Your task to perform on an android device: change the clock display to analog Image 0: 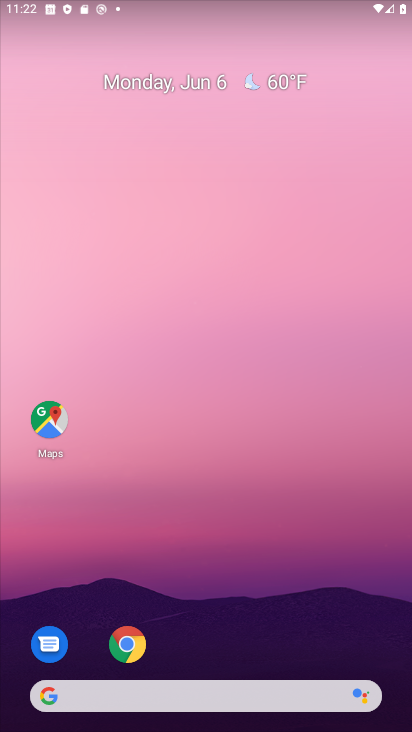
Step 0: drag from (139, 717) to (97, 29)
Your task to perform on an android device: change the clock display to analog Image 1: 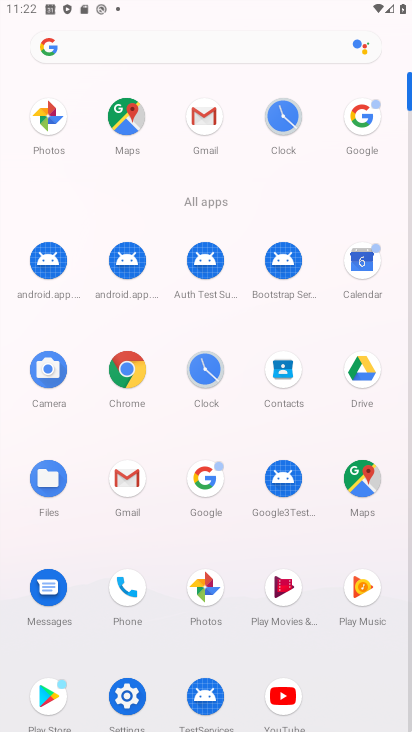
Step 1: click (290, 121)
Your task to perform on an android device: change the clock display to analog Image 2: 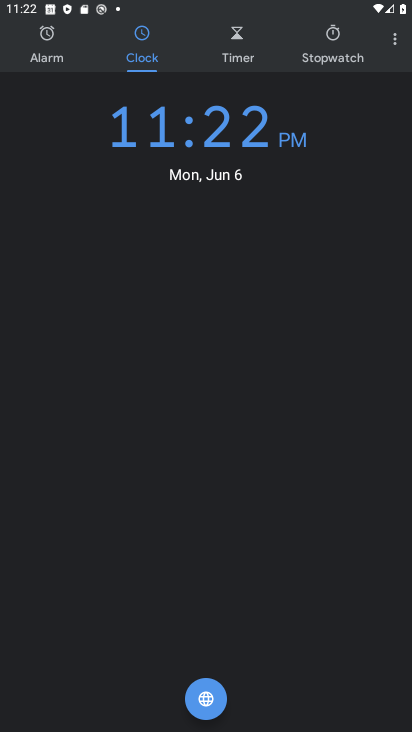
Step 2: click (396, 36)
Your task to perform on an android device: change the clock display to analog Image 3: 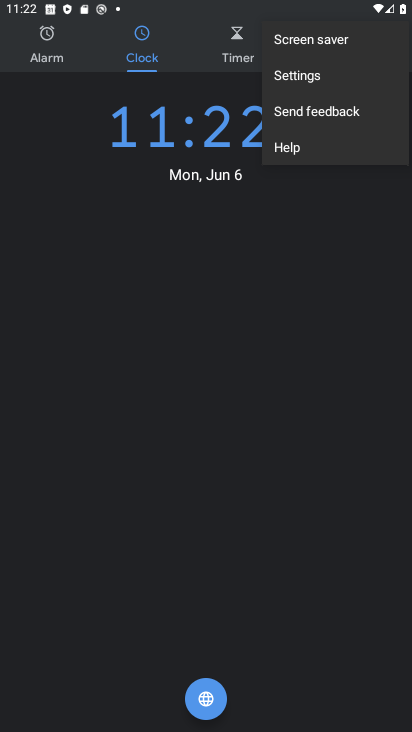
Step 3: click (337, 86)
Your task to perform on an android device: change the clock display to analog Image 4: 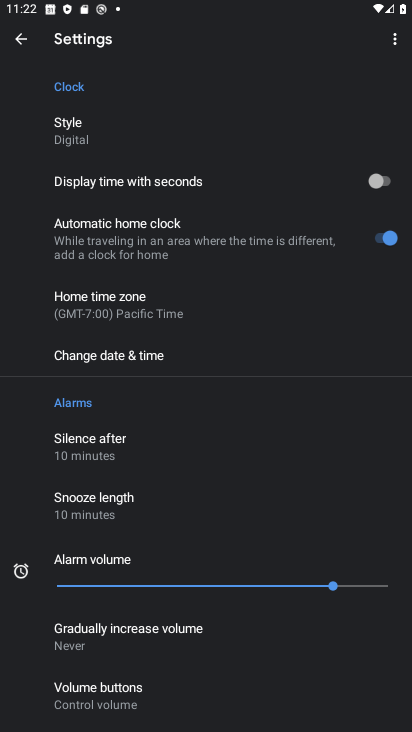
Step 4: click (102, 134)
Your task to perform on an android device: change the clock display to analog Image 5: 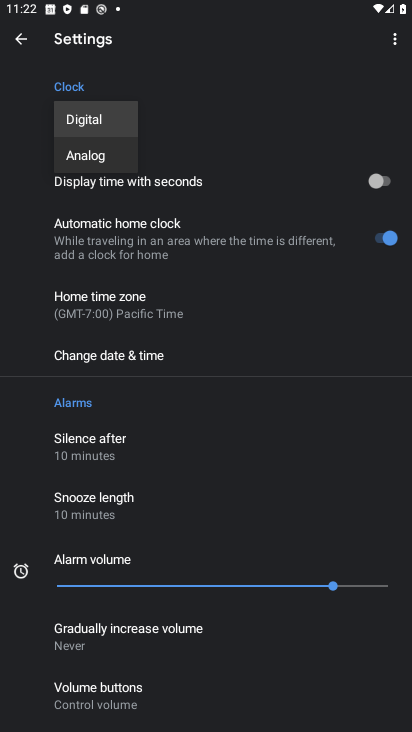
Step 5: click (103, 166)
Your task to perform on an android device: change the clock display to analog Image 6: 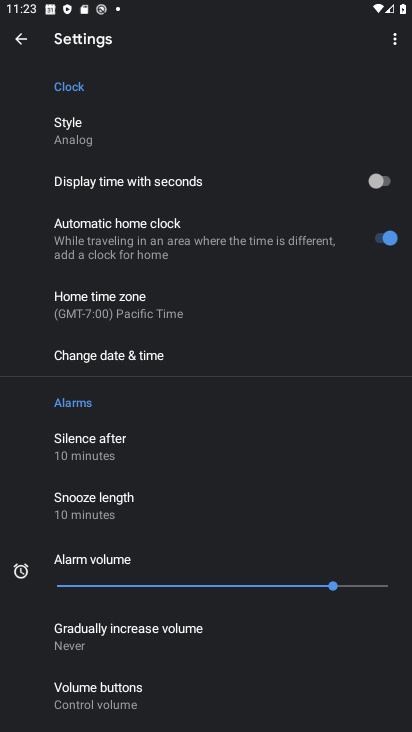
Step 6: task complete